Your task to perform on an android device: toggle location history Image 0: 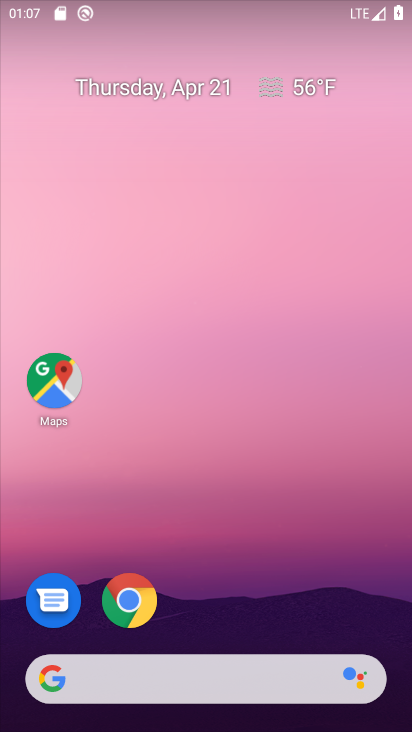
Step 0: drag from (267, 591) to (266, 106)
Your task to perform on an android device: toggle location history Image 1: 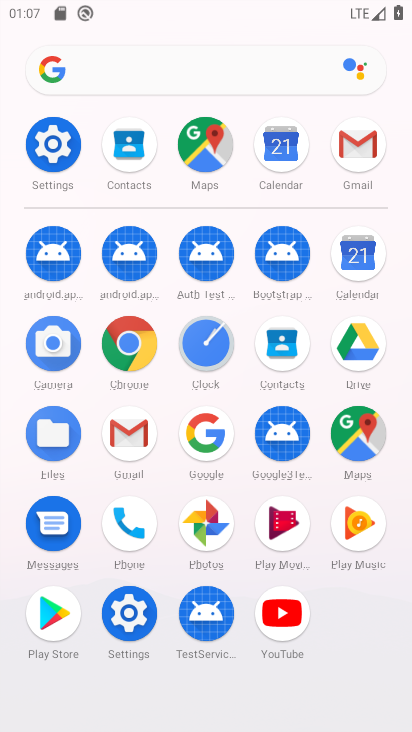
Step 1: click (57, 149)
Your task to perform on an android device: toggle location history Image 2: 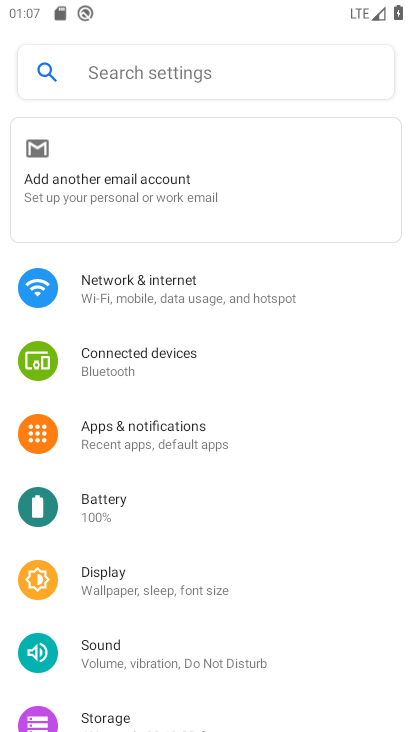
Step 2: drag from (228, 690) to (275, 154)
Your task to perform on an android device: toggle location history Image 3: 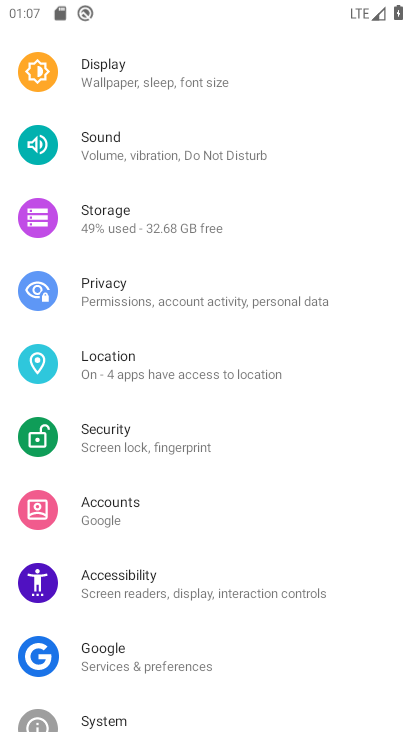
Step 3: click (213, 363)
Your task to perform on an android device: toggle location history Image 4: 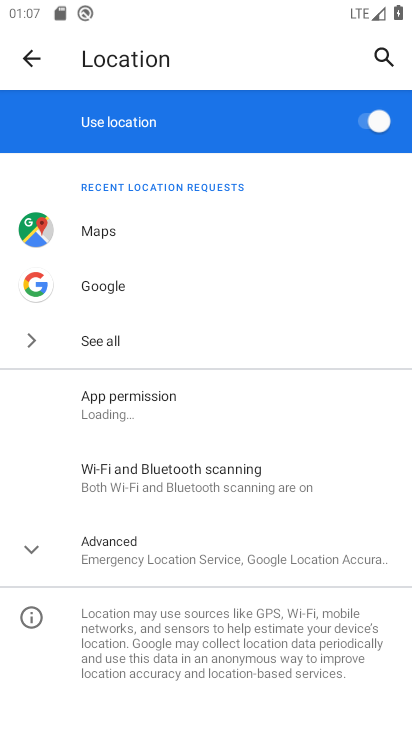
Step 4: click (24, 546)
Your task to perform on an android device: toggle location history Image 5: 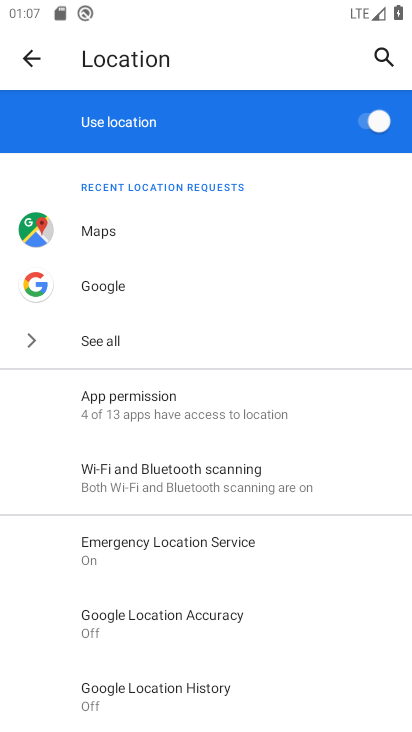
Step 5: click (184, 698)
Your task to perform on an android device: toggle location history Image 6: 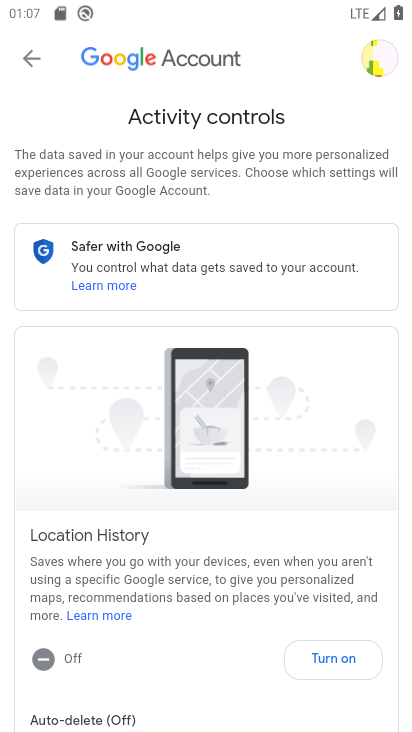
Step 6: click (347, 653)
Your task to perform on an android device: toggle location history Image 7: 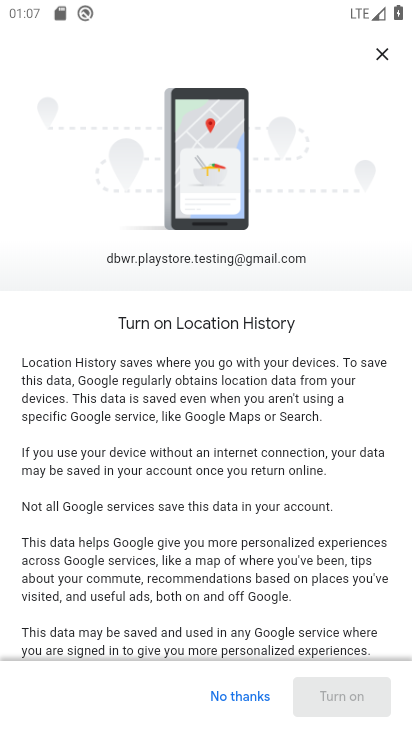
Step 7: drag from (275, 608) to (280, 262)
Your task to perform on an android device: toggle location history Image 8: 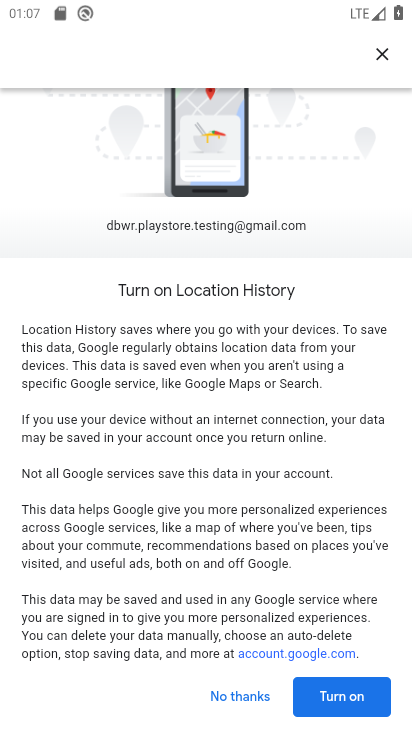
Step 8: click (318, 691)
Your task to perform on an android device: toggle location history Image 9: 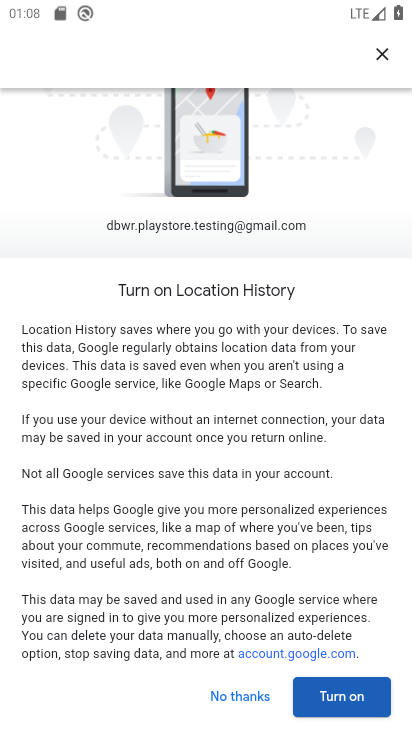
Step 9: click (344, 696)
Your task to perform on an android device: toggle location history Image 10: 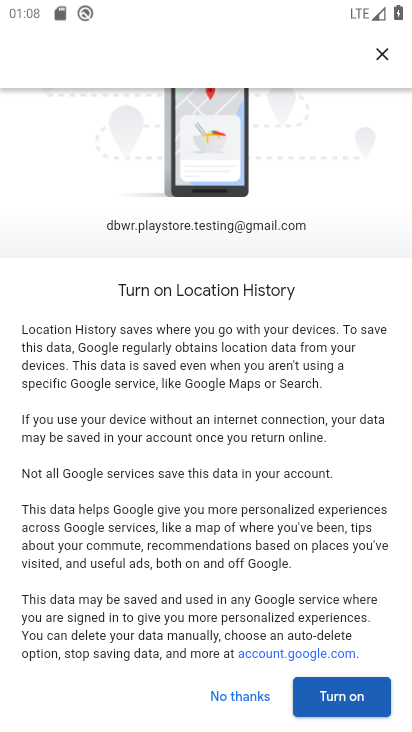
Step 10: task complete